Your task to perform on an android device: allow notifications from all sites in the chrome app Image 0: 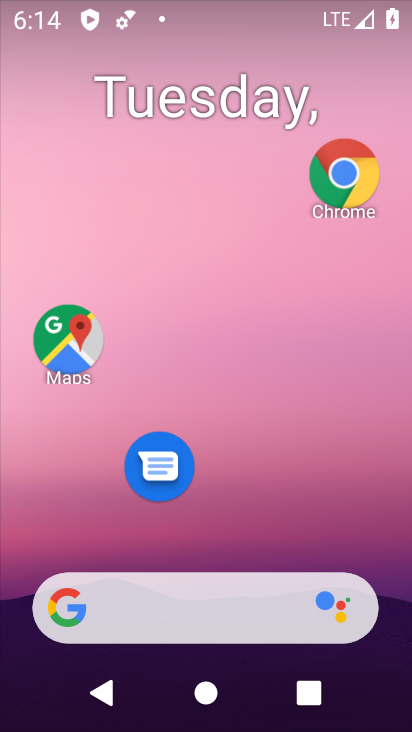
Step 0: click (361, 175)
Your task to perform on an android device: allow notifications from all sites in the chrome app Image 1: 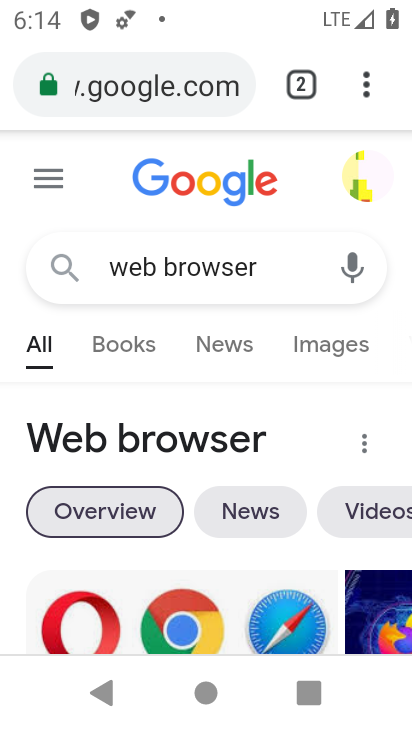
Step 1: drag from (370, 77) to (153, 520)
Your task to perform on an android device: allow notifications from all sites in the chrome app Image 2: 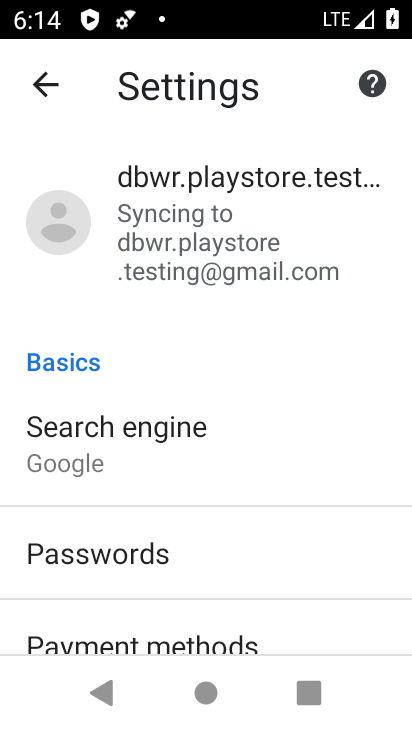
Step 2: drag from (310, 645) to (198, 196)
Your task to perform on an android device: allow notifications from all sites in the chrome app Image 3: 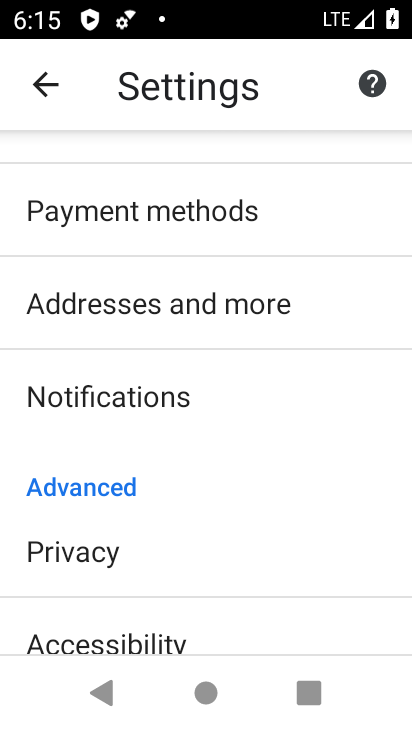
Step 3: drag from (262, 170) to (272, 11)
Your task to perform on an android device: allow notifications from all sites in the chrome app Image 4: 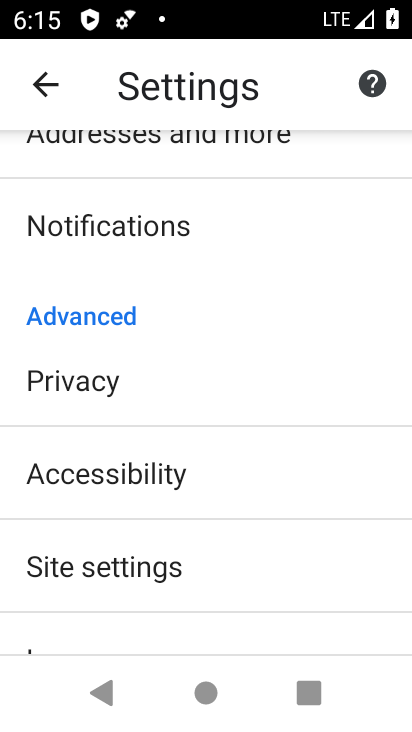
Step 4: click (285, 549)
Your task to perform on an android device: allow notifications from all sites in the chrome app Image 5: 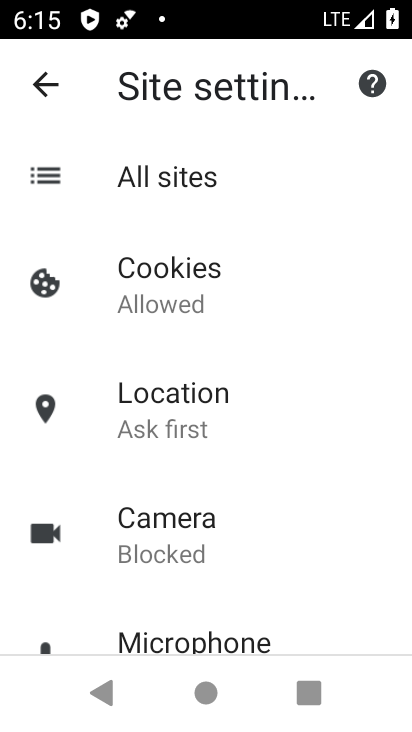
Step 5: click (217, 181)
Your task to perform on an android device: allow notifications from all sites in the chrome app Image 6: 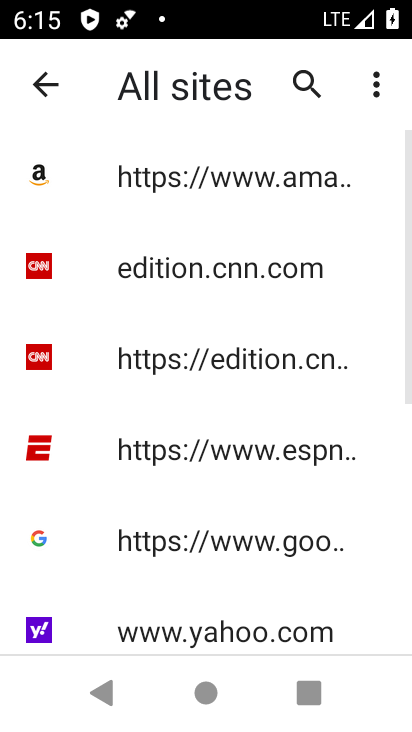
Step 6: drag from (214, 612) to (265, 181)
Your task to perform on an android device: allow notifications from all sites in the chrome app Image 7: 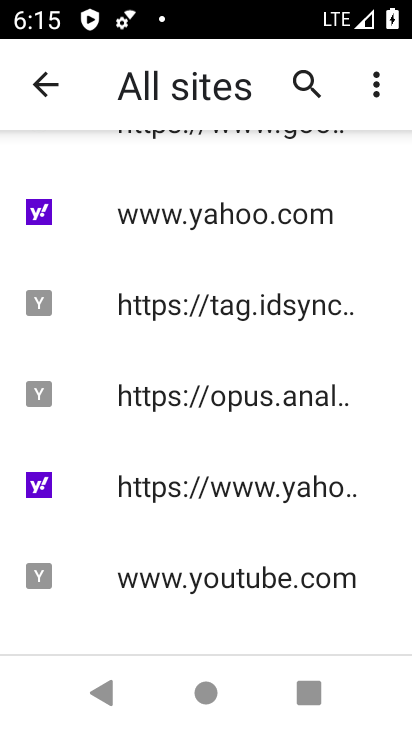
Step 7: drag from (230, 521) to (266, 231)
Your task to perform on an android device: allow notifications from all sites in the chrome app Image 8: 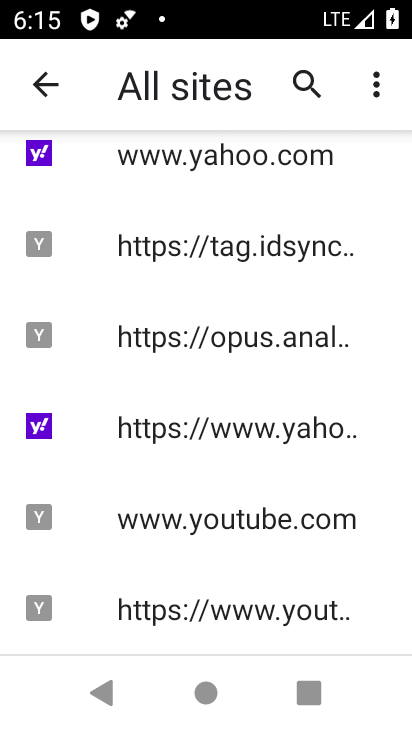
Step 8: drag from (226, 578) to (235, 296)
Your task to perform on an android device: allow notifications from all sites in the chrome app Image 9: 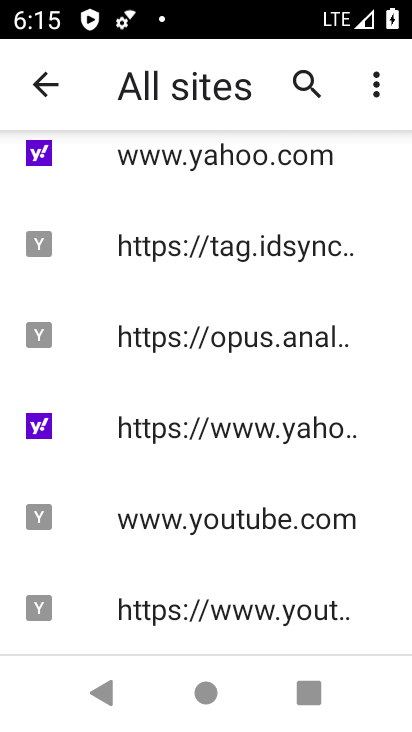
Step 9: drag from (230, 549) to (147, 141)
Your task to perform on an android device: allow notifications from all sites in the chrome app Image 10: 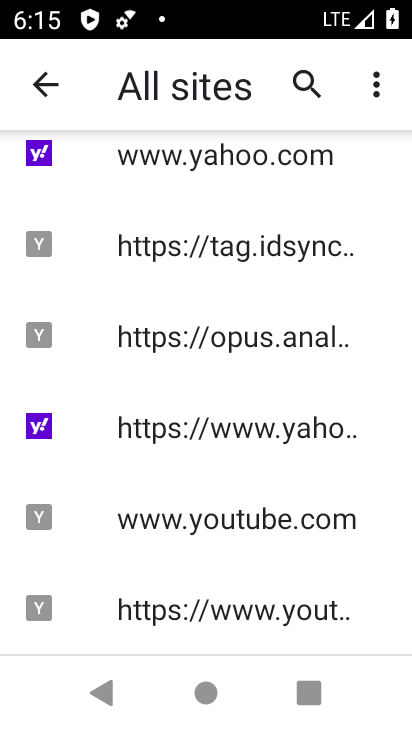
Step 10: drag from (181, 159) to (128, 701)
Your task to perform on an android device: allow notifications from all sites in the chrome app Image 11: 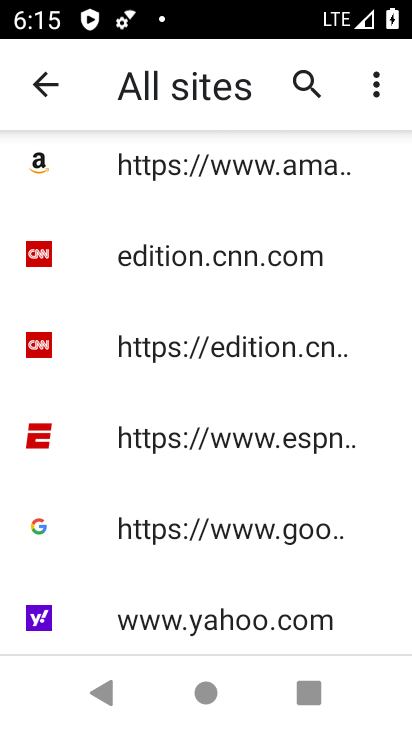
Step 11: drag from (127, 177) to (248, 711)
Your task to perform on an android device: allow notifications from all sites in the chrome app Image 12: 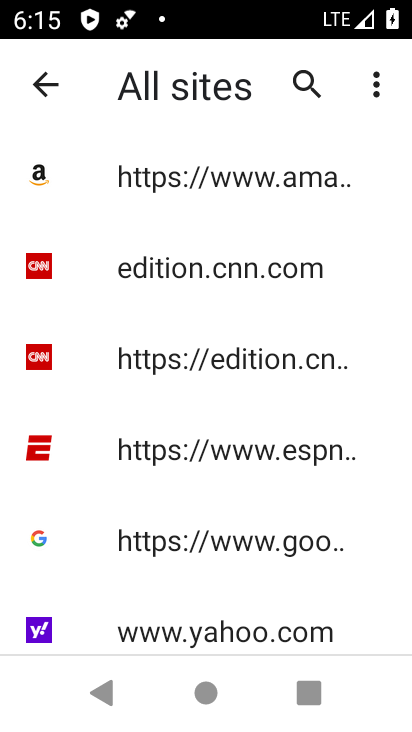
Step 12: click (133, 552)
Your task to perform on an android device: allow notifications from all sites in the chrome app Image 13: 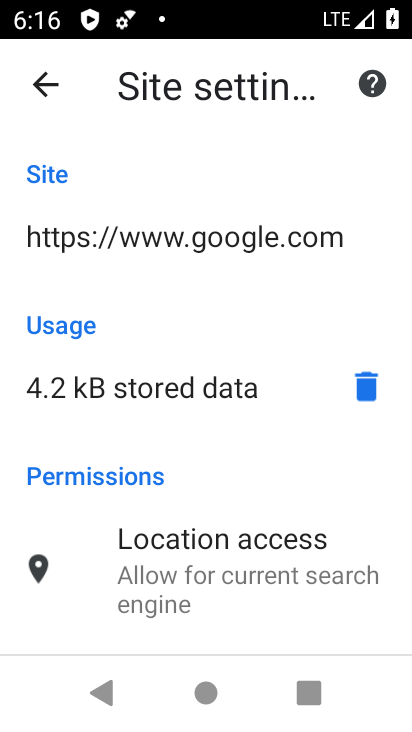
Step 13: drag from (155, 522) to (82, 278)
Your task to perform on an android device: allow notifications from all sites in the chrome app Image 14: 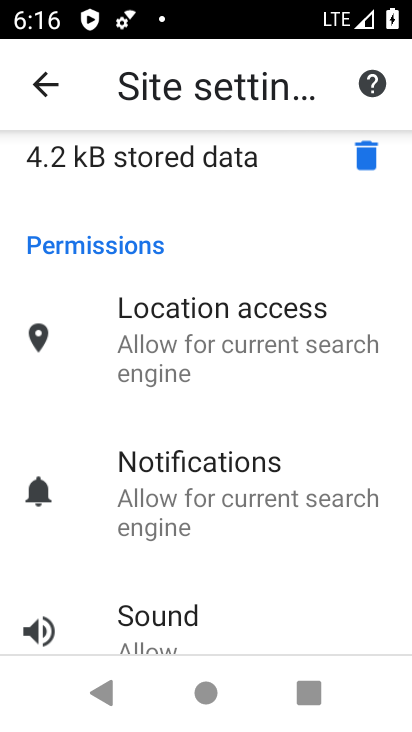
Step 14: click (189, 509)
Your task to perform on an android device: allow notifications from all sites in the chrome app Image 15: 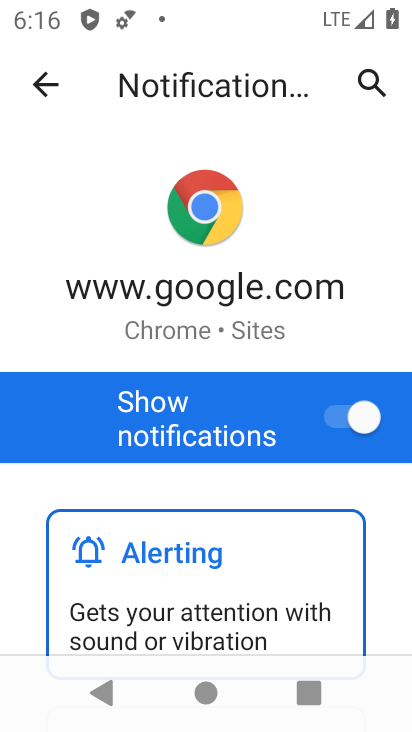
Step 15: drag from (218, 474) to (98, 130)
Your task to perform on an android device: allow notifications from all sites in the chrome app Image 16: 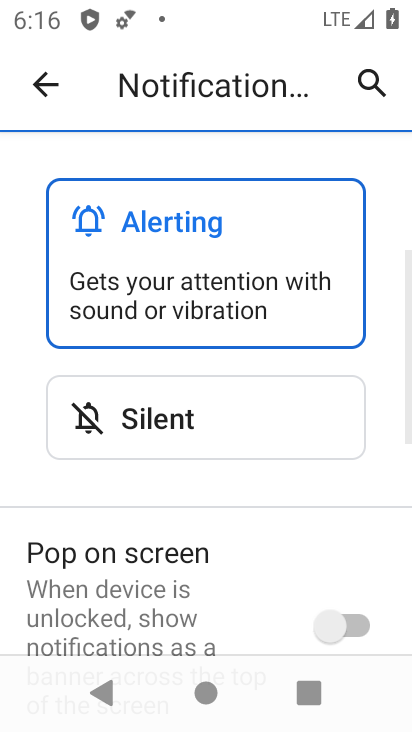
Step 16: drag from (180, 571) to (182, 194)
Your task to perform on an android device: allow notifications from all sites in the chrome app Image 17: 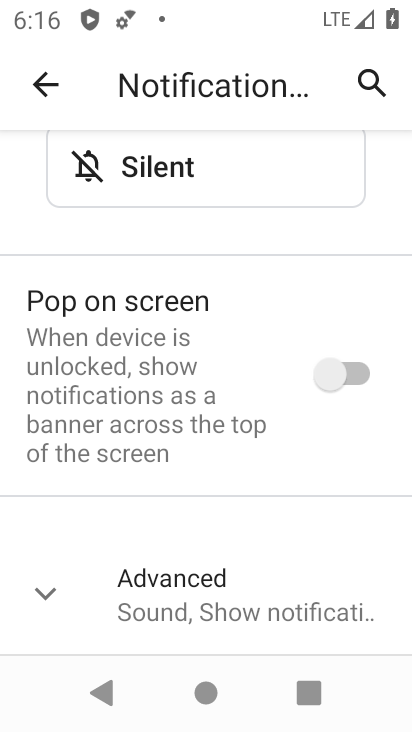
Step 17: click (176, 448)
Your task to perform on an android device: allow notifications from all sites in the chrome app Image 18: 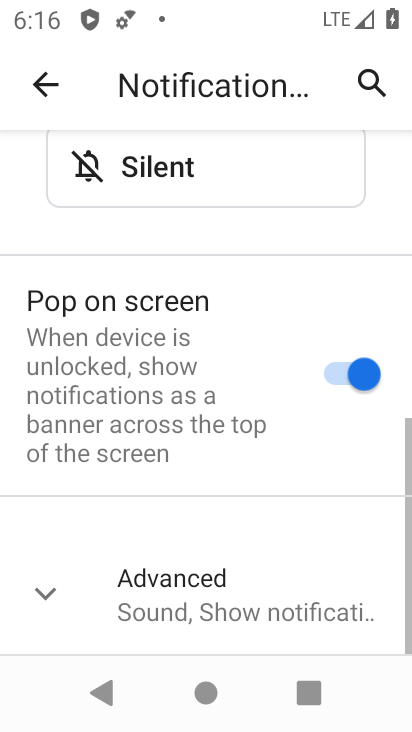
Step 18: click (214, 588)
Your task to perform on an android device: allow notifications from all sites in the chrome app Image 19: 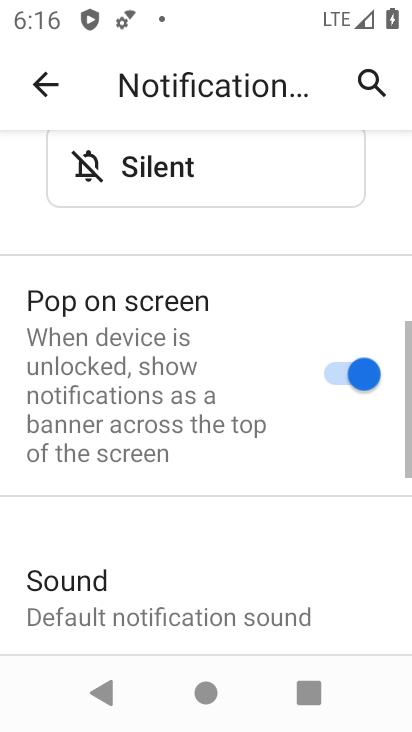
Step 19: drag from (224, 593) to (210, 314)
Your task to perform on an android device: allow notifications from all sites in the chrome app Image 20: 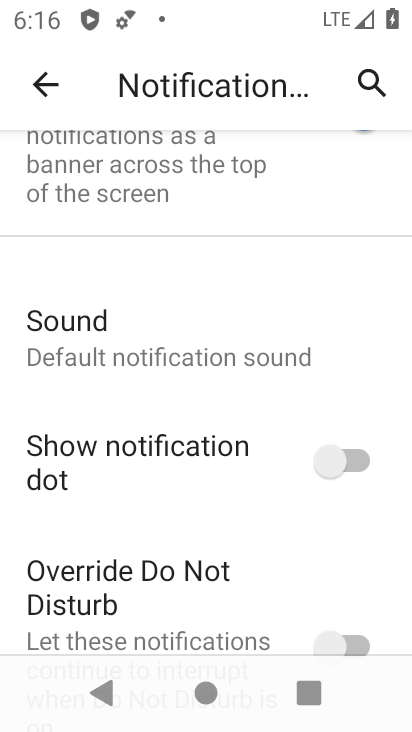
Step 20: click (230, 484)
Your task to perform on an android device: allow notifications from all sites in the chrome app Image 21: 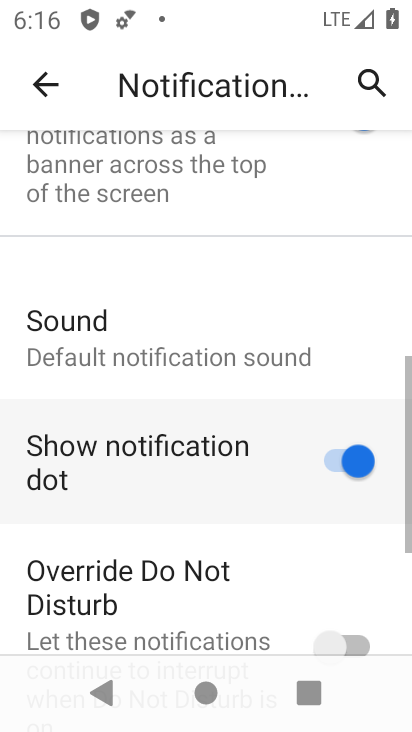
Step 21: click (310, 638)
Your task to perform on an android device: allow notifications from all sites in the chrome app Image 22: 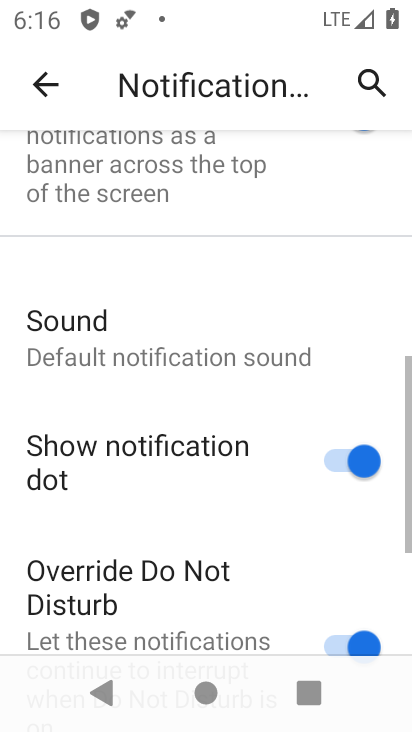
Step 22: task complete